Your task to perform on an android device: Open the calendar and show me this week's events Image 0: 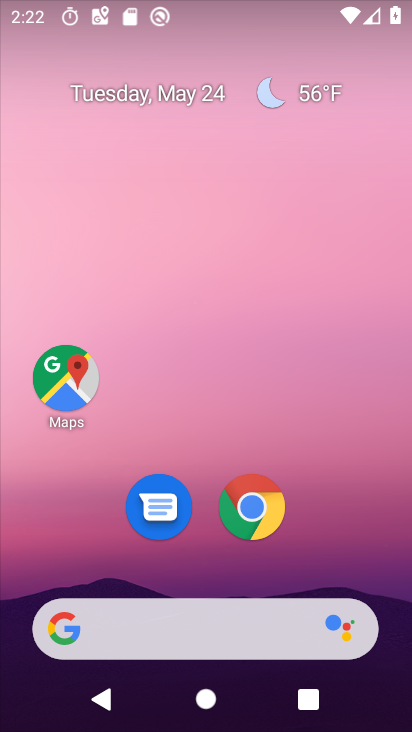
Step 0: press home button
Your task to perform on an android device: Open the calendar and show me this week's events Image 1: 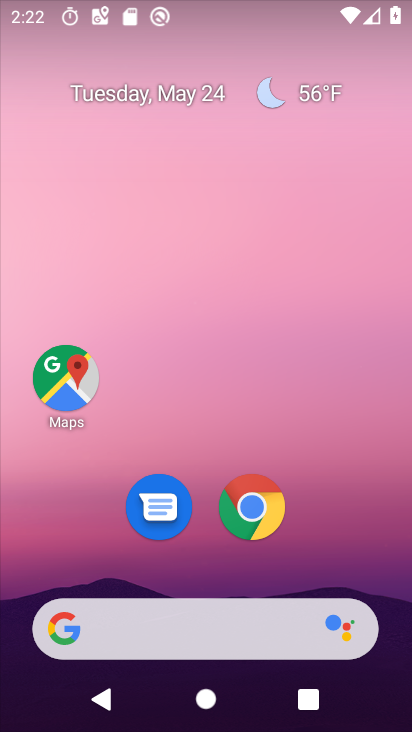
Step 1: drag from (214, 555) to (249, 179)
Your task to perform on an android device: Open the calendar and show me this week's events Image 2: 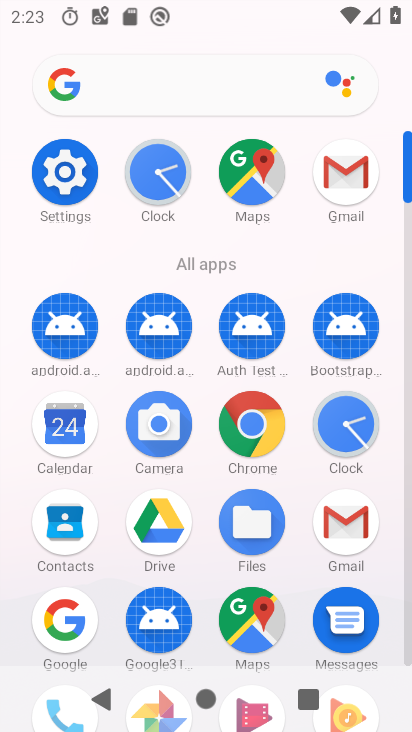
Step 2: click (66, 415)
Your task to perform on an android device: Open the calendar and show me this week's events Image 3: 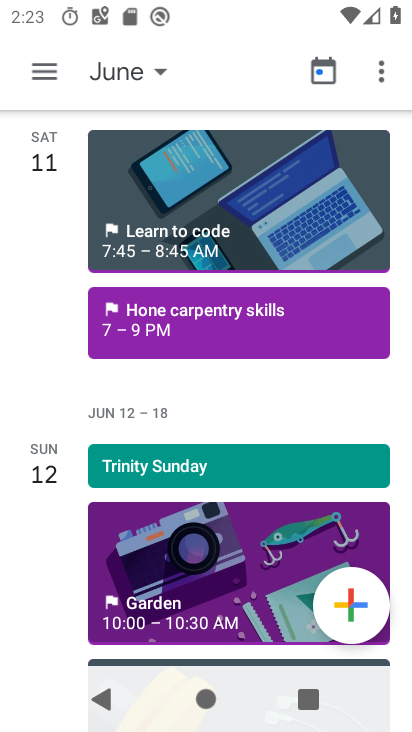
Step 3: click (51, 70)
Your task to perform on an android device: Open the calendar and show me this week's events Image 4: 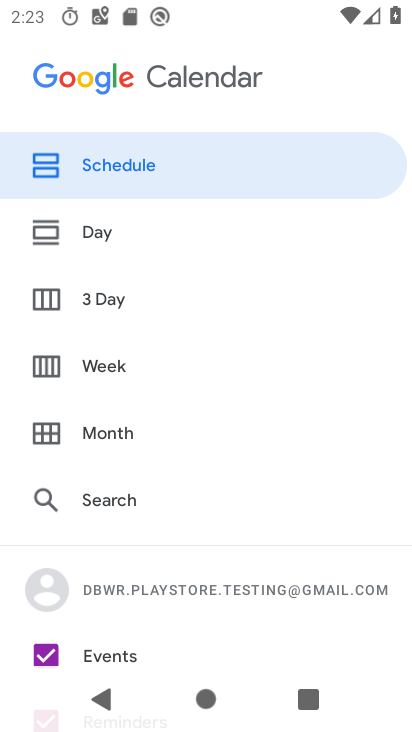
Step 4: click (68, 363)
Your task to perform on an android device: Open the calendar and show me this week's events Image 5: 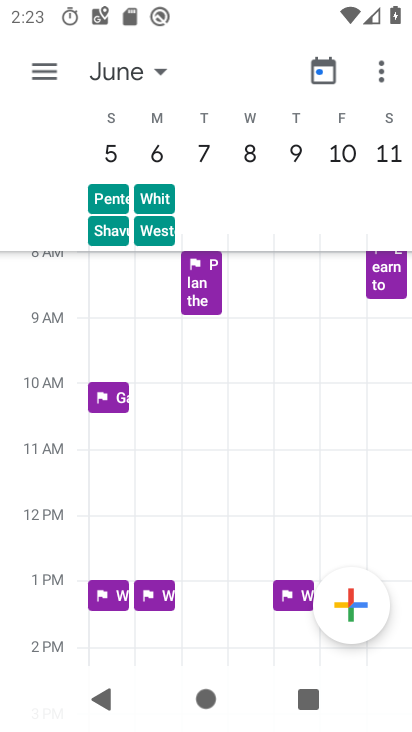
Step 5: drag from (119, 150) to (405, 155)
Your task to perform on an android device: Open the calendar and show me this week's events Image 6: 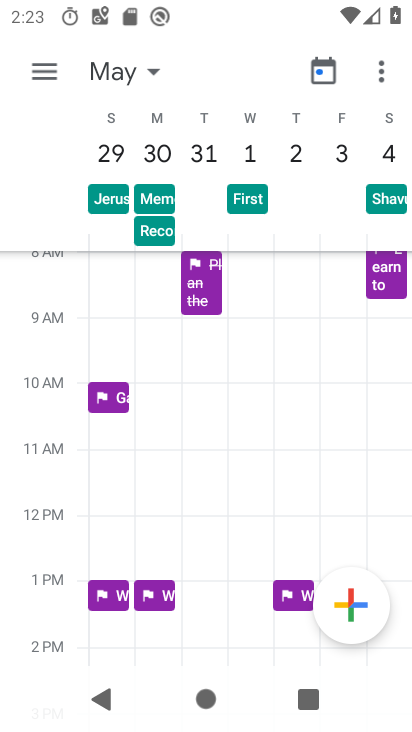
Step 6: drag from (102, 149) to (398, 156)
Your task to perform on an android device: Open the calendar and show me this week's events Image 7: 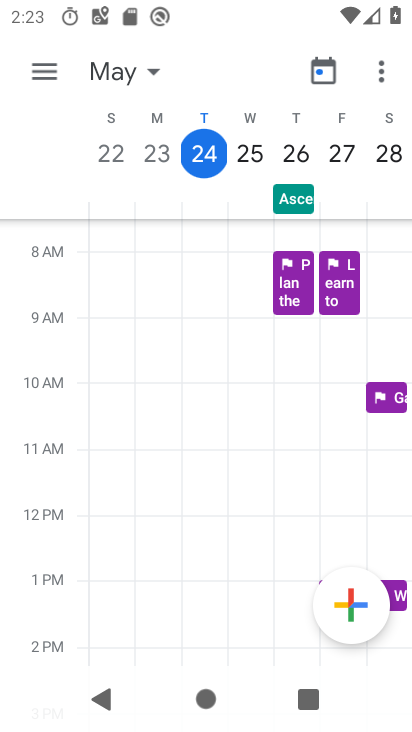
Step 7: click (203, 153)
Your task to perform on an android device: Open the calendar and show me this week's events Image 8: 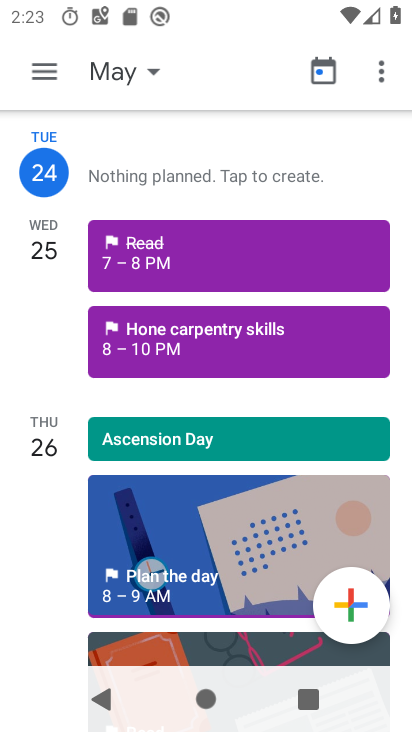
Step 8: click (36, 77)
Your task to perform on an android device: Open the calendar and show me this week's events Image 9: 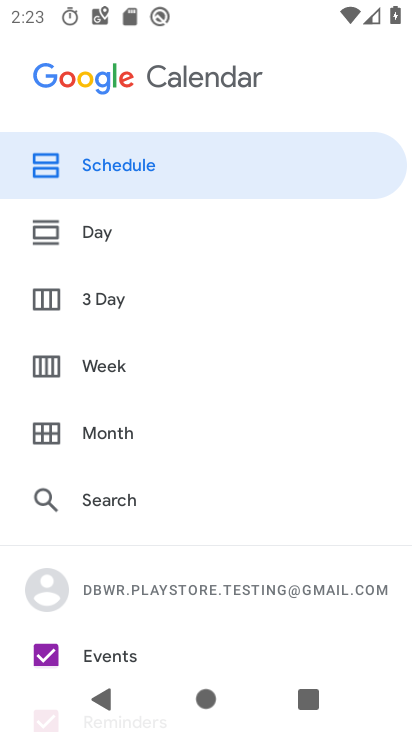
Step 9: drag from (82, 549) to (150, 98)
Your task to perform on an android device: Open the calendar and show me this week's events Image 10: 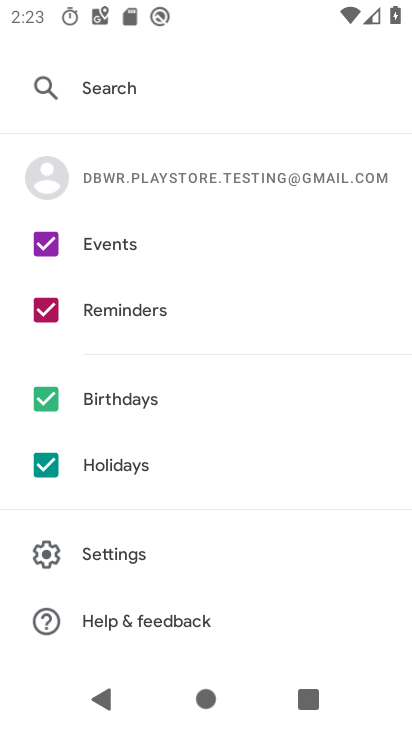
Step 10: click (38, 458)
Your task to perform on an android device: Open the calendar and show me this week's events Image 11: 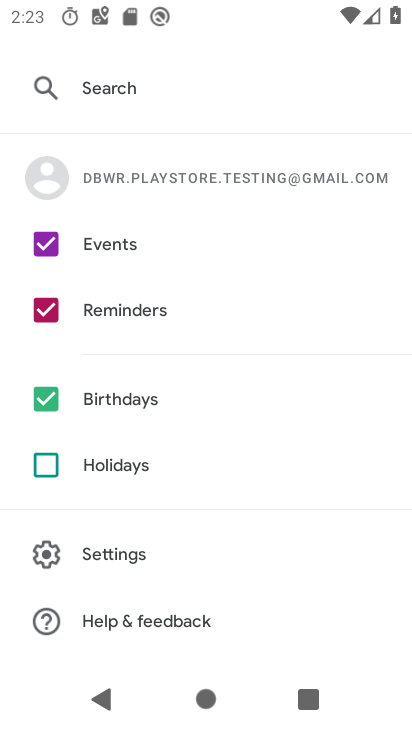
Step 11: click (40, 395)
Your task to perform on an android device: Open the calendar and show me this week's events Image 12: 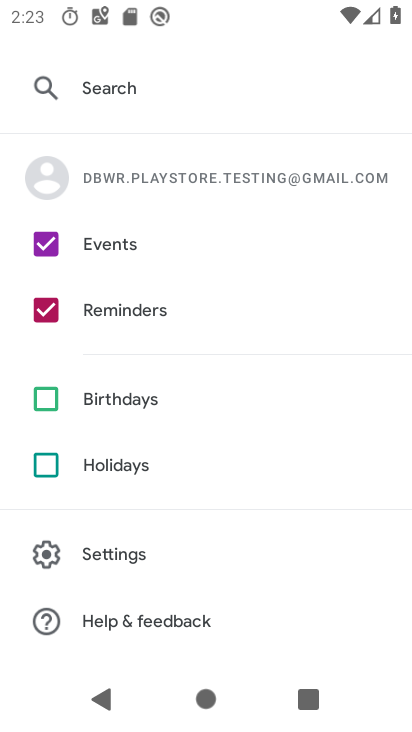
Step 12: click (38, 298)
Your task to perform on an android device: Open the calendar and show me this week's events Image 13: 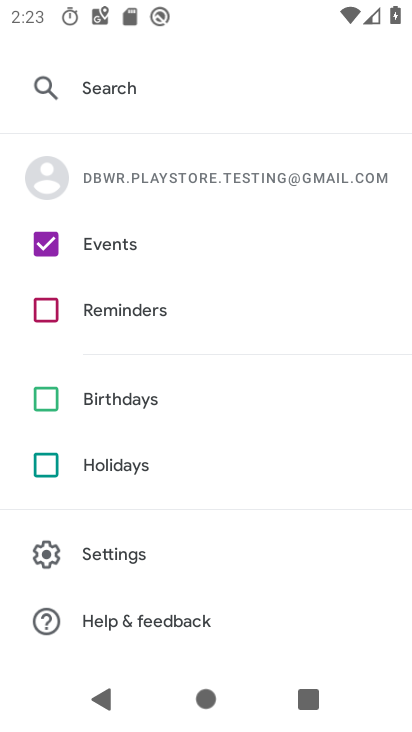
Step 13: drag from (130, 172) to (117, 583)
Your task to perform on an android device: Open the calendar and show me this week's events Image 14: 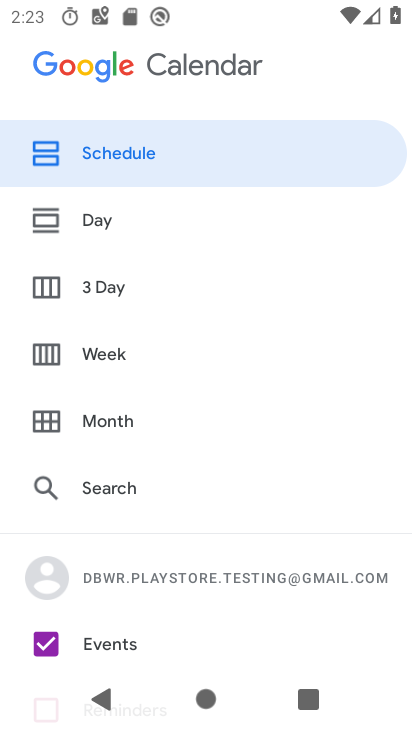
Step 14: drag from (108, 96) to (112, 446)
Your task to perform on an android device: Open the calendar and show me this week's events Image 15: 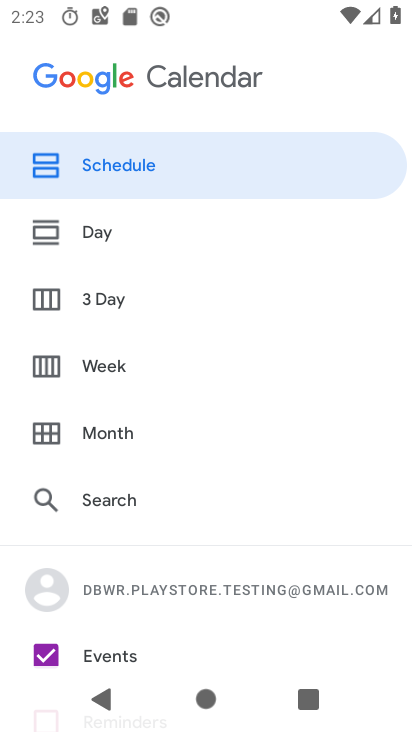
Step 15: click (117, 175)
Your task to perform on an android device: Open the calendar and show me this week's events Image 16: 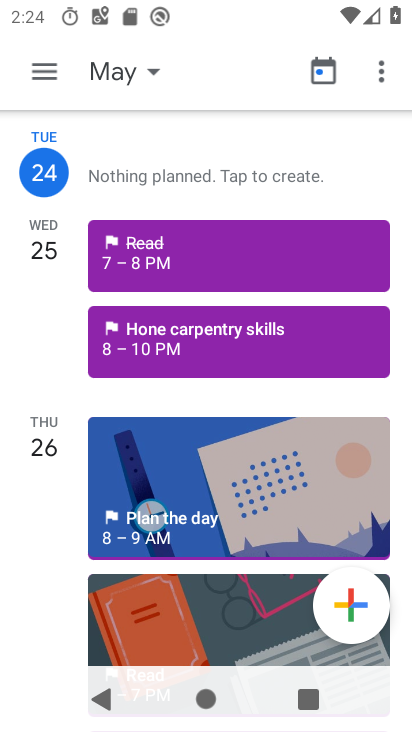
Step 16: task complete